Your task to perform on an android device: empty trash in the gmail app Image 0: 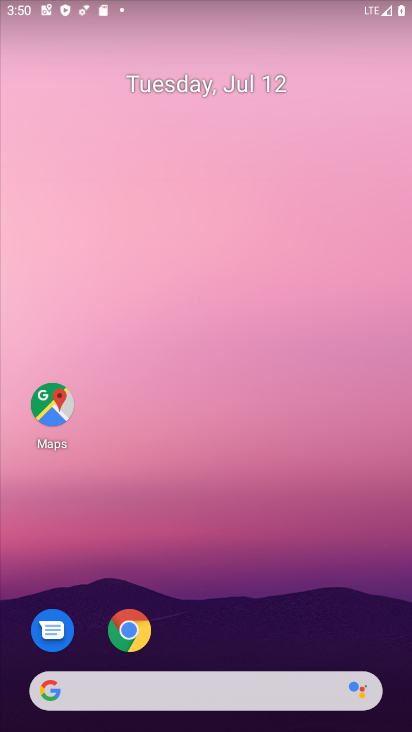
Step 0: drag from (233, 696) to (143, 47)
Your task to perform on an android device: empty trash in the gmail app Image 1: 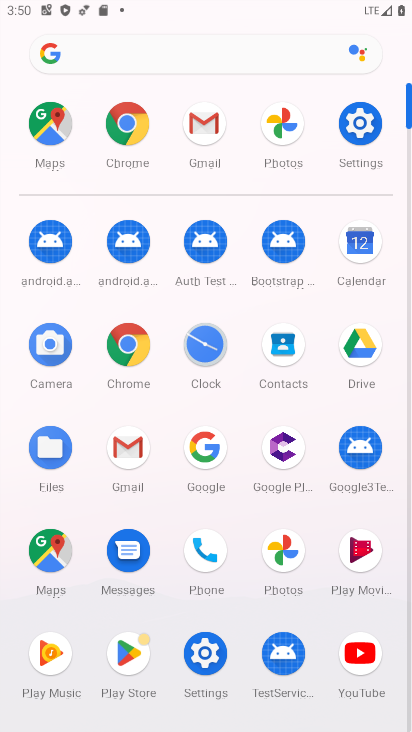
Step 1: click (127, 458)
Your task to perform on an android device: empty trash in the gmail app Image 2: 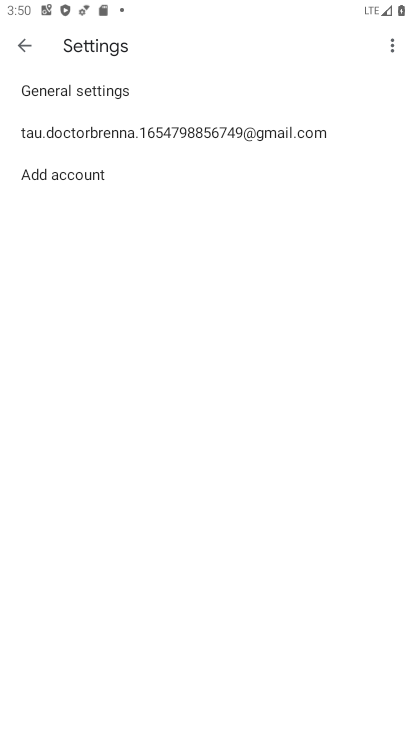
Step 2: press back button
Your task to perform on an android device: empty trash in the gmail app Image 3: 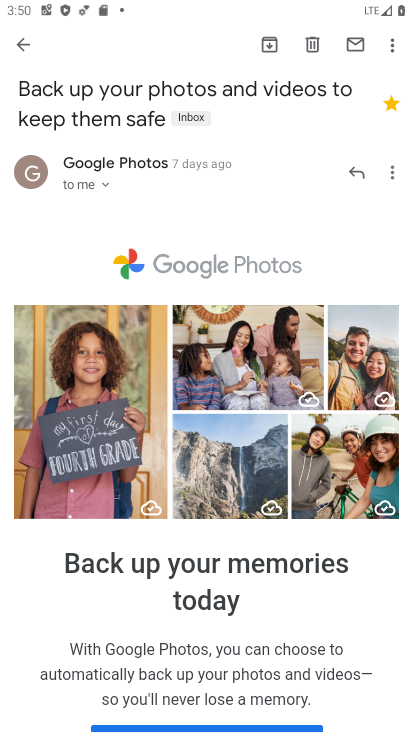
Step 3: press back button
Your task to perform on an android device: empty trash in the gmail app Image 4: 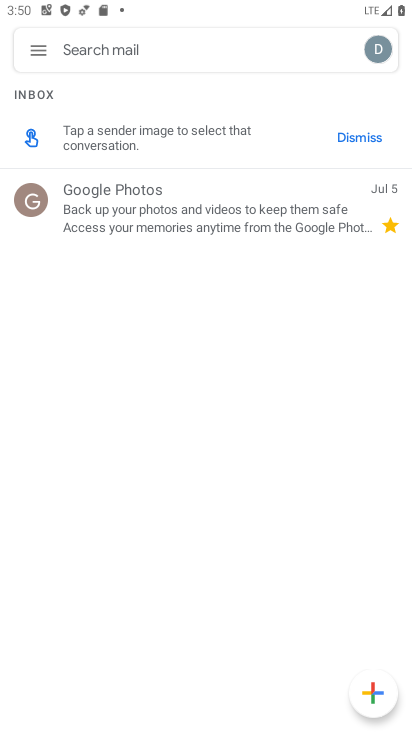
Step 4: click (40, 42)
Your task to perform on an android device: empty trash in the gmail app Image 5: 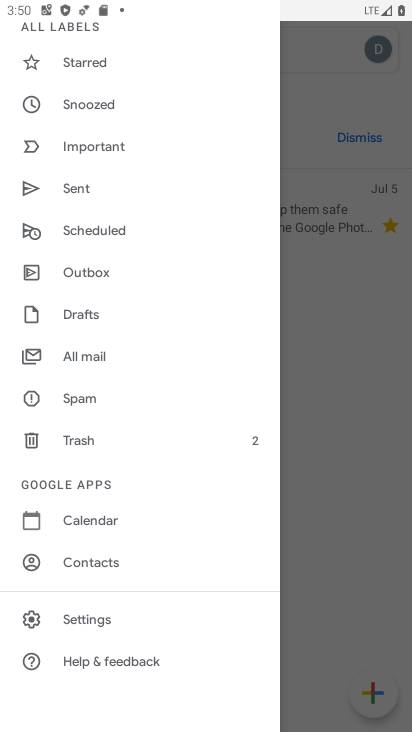
Step 5: click (112, 437)
Your task to perform on an android device: empty trash in the gmail app Image 6: 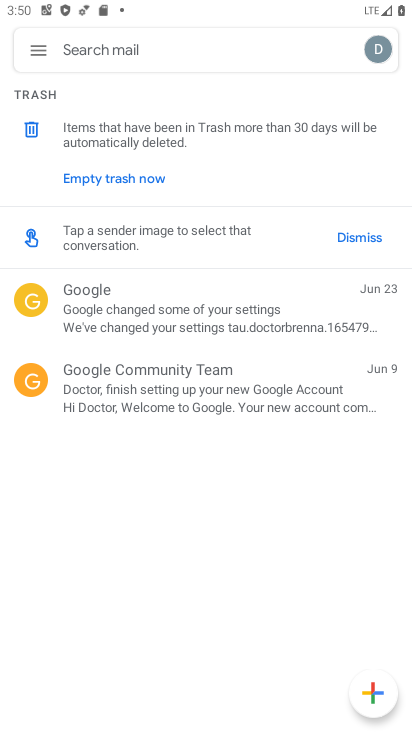
Step 6: task complete